Your task to perform on an android device: What's on my calendar tomorrow? Image 0: 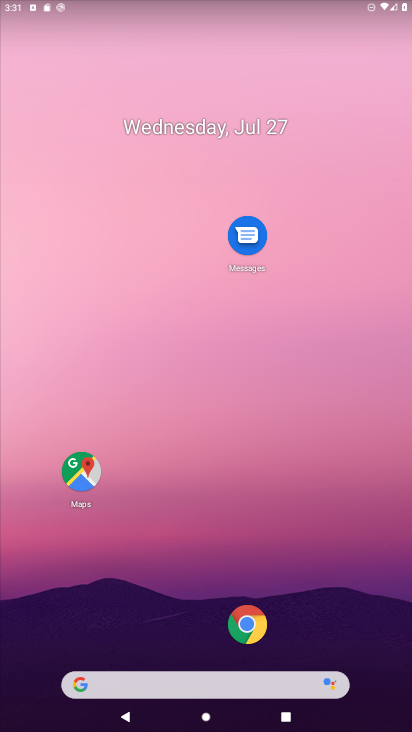
Step 0: click (171, 129)
Your task to perform on an android device: What's on my calendar tomorrow? Image 1: 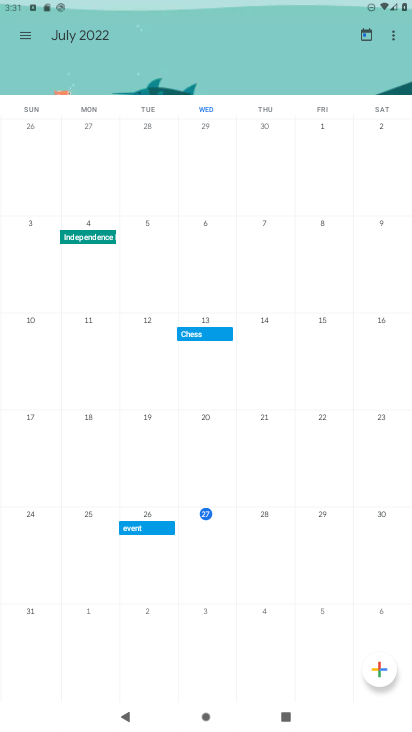
Step 1: click (211, 527)
Your task to perform on an android device: What's on my calendar tomorrow? Image 2: 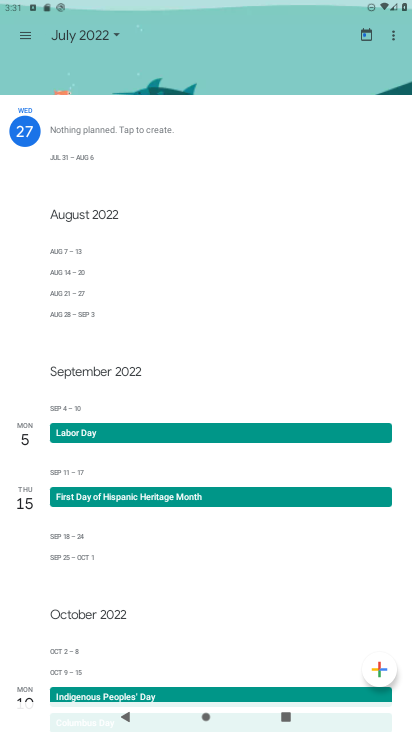
Step 2: task complete